Your task to perform on an android device: refresh tabs in the chrome app Image 0: 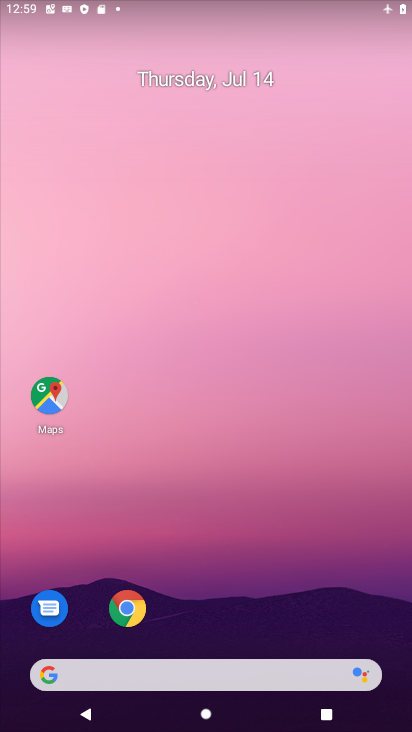
Step 0: click (122, 605)
Your task to perform on an android device: refresh tabs in the chrome app Image 1: 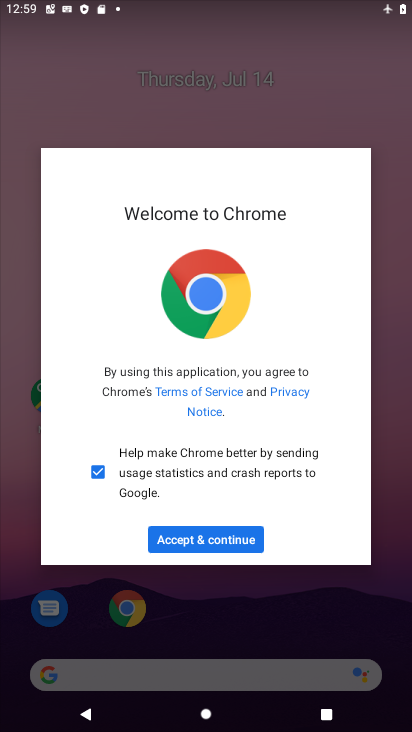
Step 1: click (200, 536)
Your task to perform on an android device: refresh tabs in the chrome app Image 2: 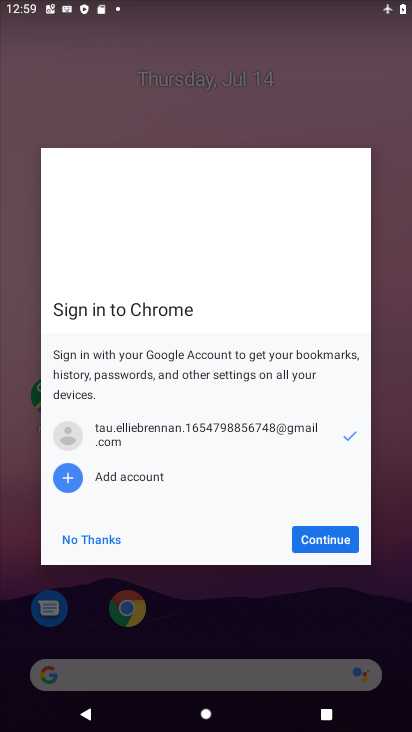
Step 2: click (320, 541)
Your task to perform on an android device: refresh tabs in the chrome app Image 3: 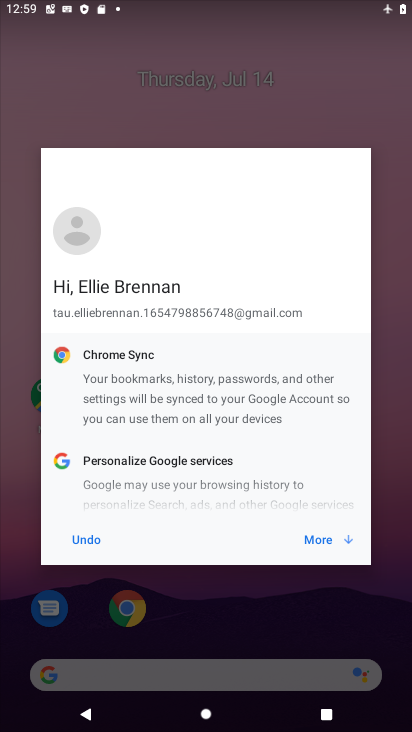
Step 3: click (320, 536)
Your task to perform on an android device: refresh tabs in the chrome app Image 4: 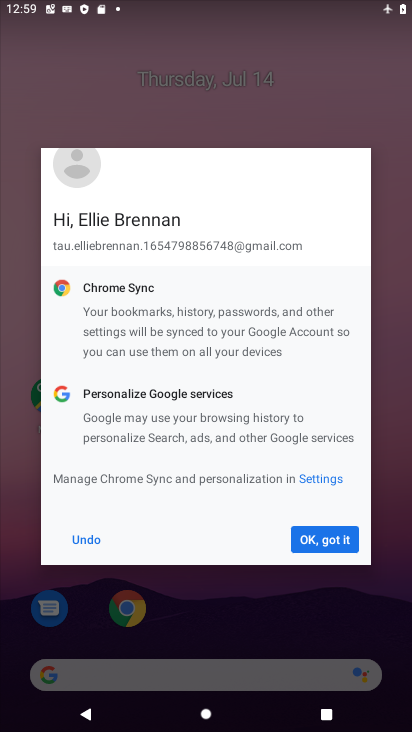
Step 4: click (336, 545)
Your task to perform on an android device: refresh tabs in the chrome app Image 5: 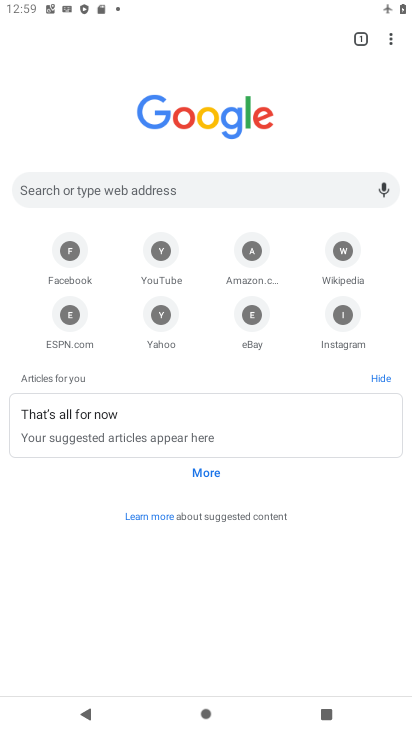
Step 5: click (391, 41)
Your task to perform on an android device: refresh tabs in the chrome app Image 6: 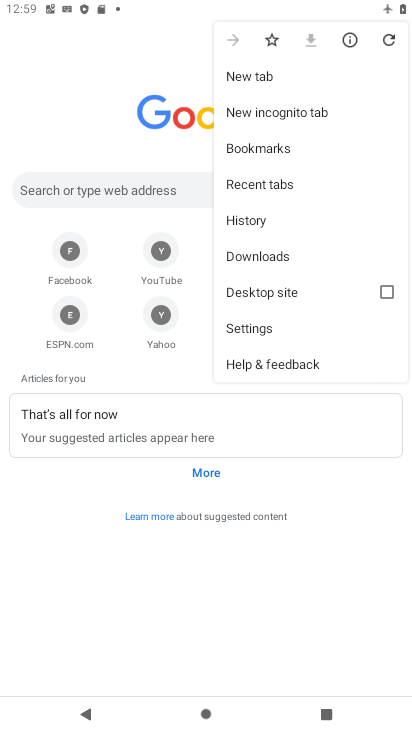
Step 6: click (386, 43)
Your task to perform on an android device: refresh tabs in the chrome app Image 7: 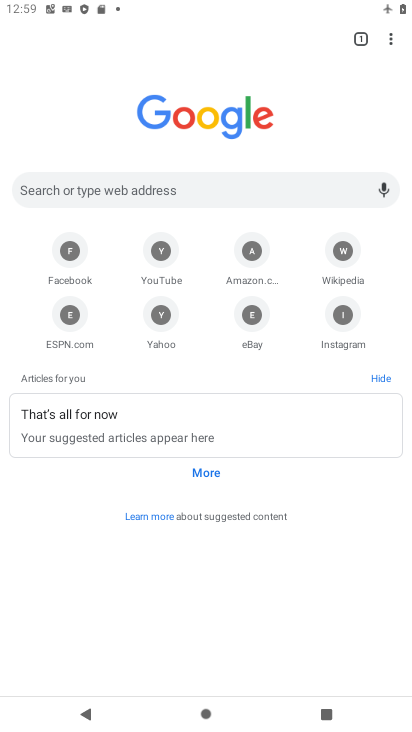
Step 7: task complete